Your task to perform on an android device: Open sound settings Image 0: 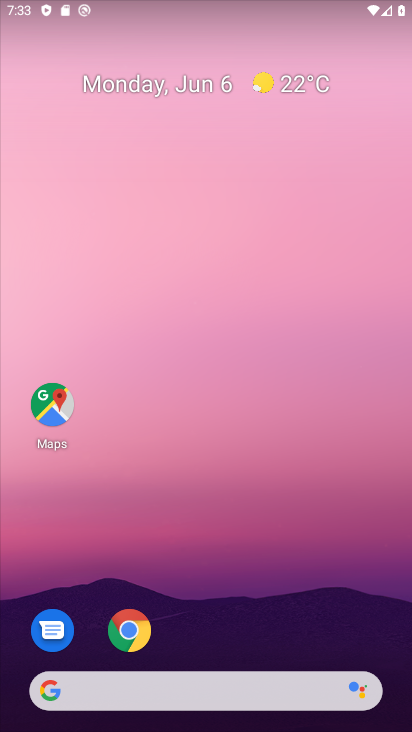
Step 0: drag from (179, 668) to (160, 256)
Your task to perform on an android device: Open sound settings Image 1: 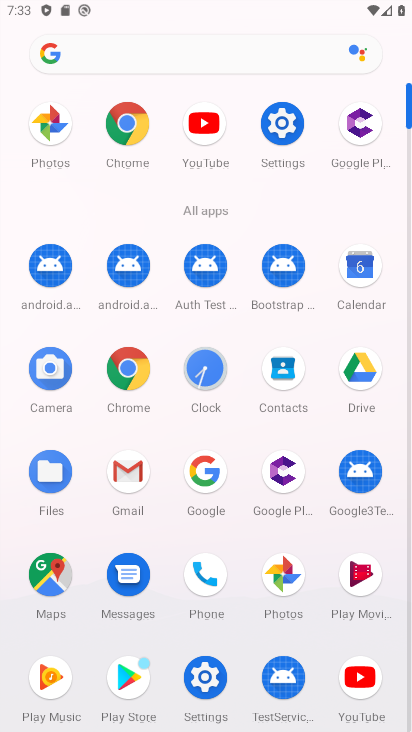
Step 1: click (295, 129)
Your task to perform on an android device: Open sound settings Image 2: 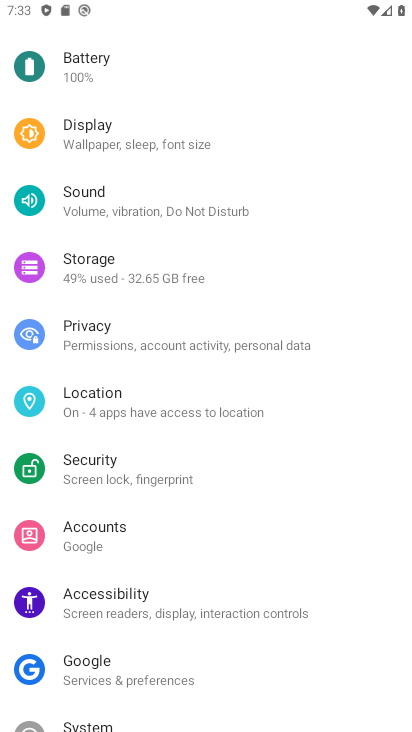
Step 2: click (161, 221)
Your task to perform on an android device: Open sound settings Image 3: 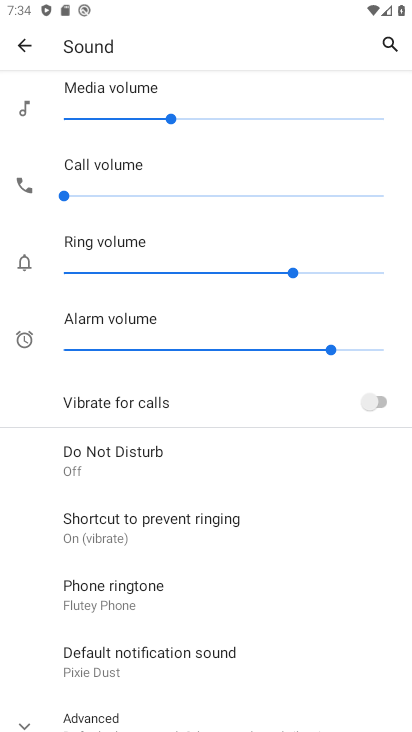
Step 3: task complete